Your task to perform on an android device: turn on the 24-hour format for clock Image 0: 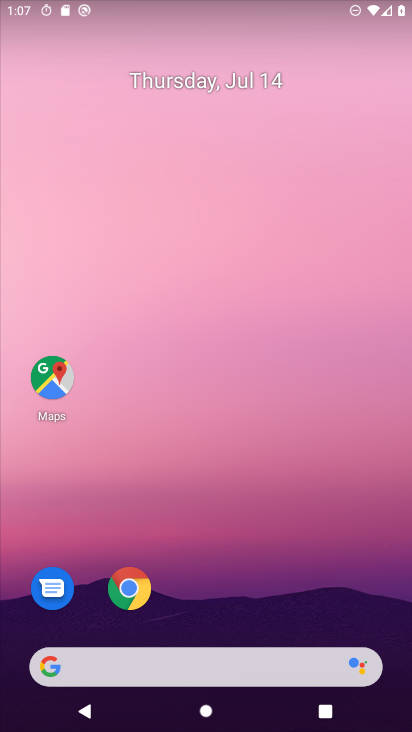
Step 0: drag from (179, 660) to (246, 165)
Your task to perform on an android device: turn on the 24-hour format for clock Image 1: 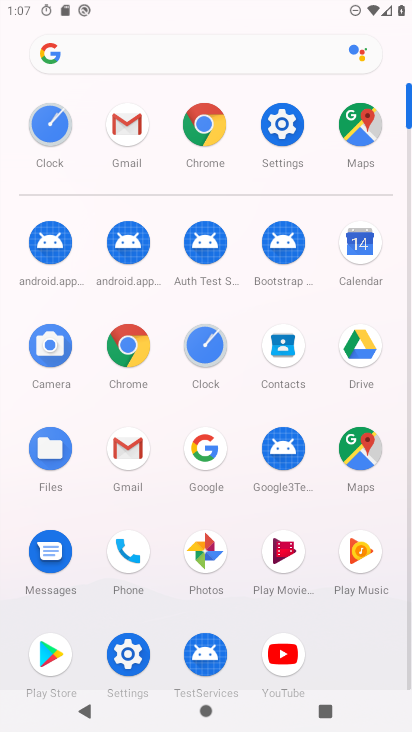
Step 1: click (205, 346)
Your task to perform on an android device: turn on the 24-hour format for clock Image 2: 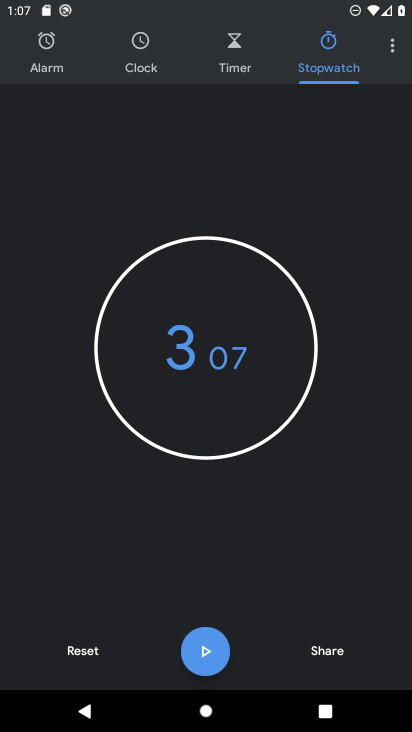
Step 2: click (389, 46)
Your task to perform on an android device: turn on the 24-hour format for clock Image 3: 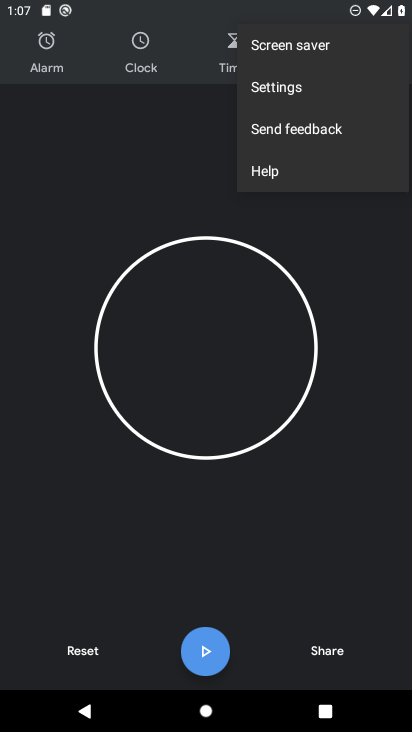
Step 3: click (290, 88)
Your task to perform on an android device: turn on the 24-hour format for clock Image 4: 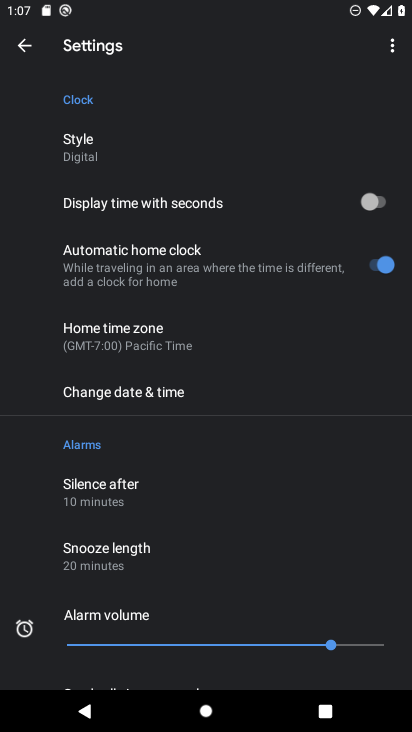
Step 4: click (132, 393)
Your task to perform on an android device: turn on the 24-hour format for clock Image 5: 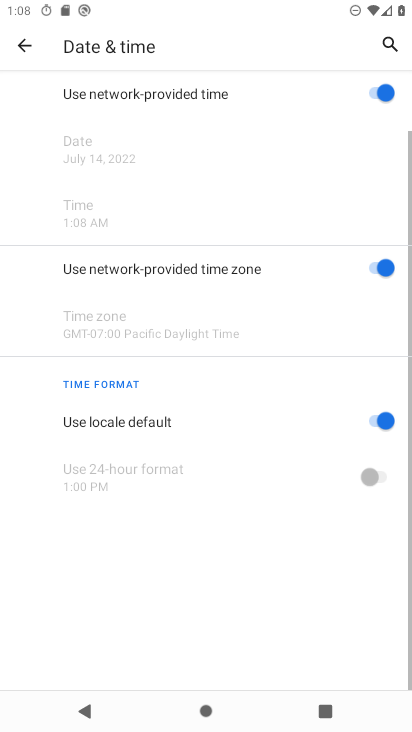
Step 5: click (373, 425)
Your task to perform on an android device: turn on the 24-hour format for clock Image 6: 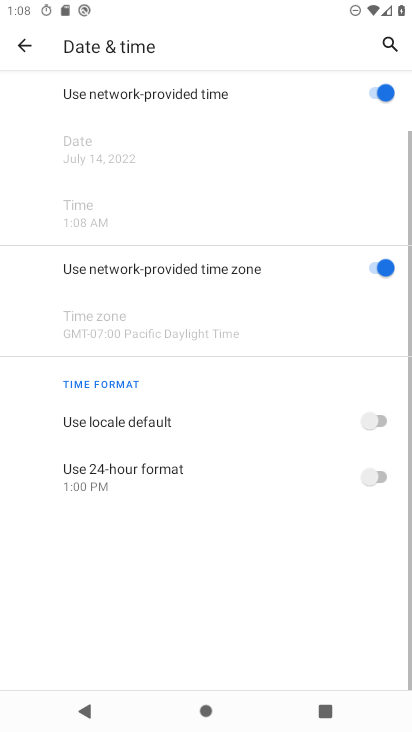
Step 6: click (379, 477)
Your task to perform on an android device: turn on the 24-hour format for clock Image 7: 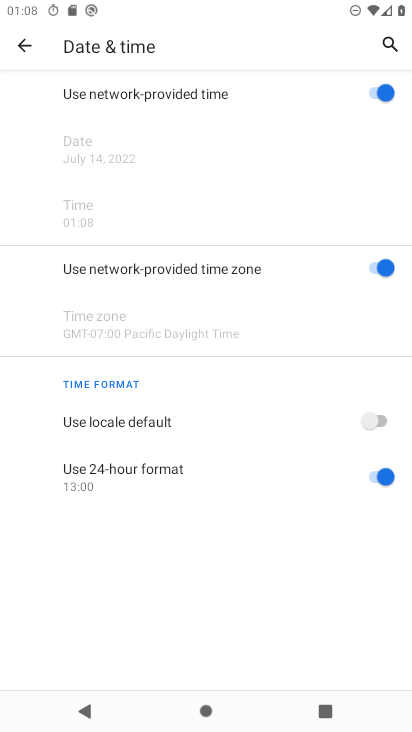
Step 7: task complete